Your task to perform on an android device: change notifications settings Image 0: 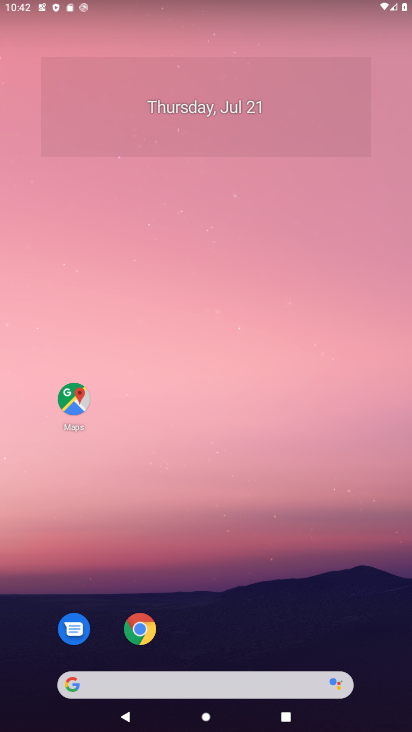
Step 0: drag from (230, 651) to (163, 154)
Your task to perform on an android device: change notifications settings Image 1: 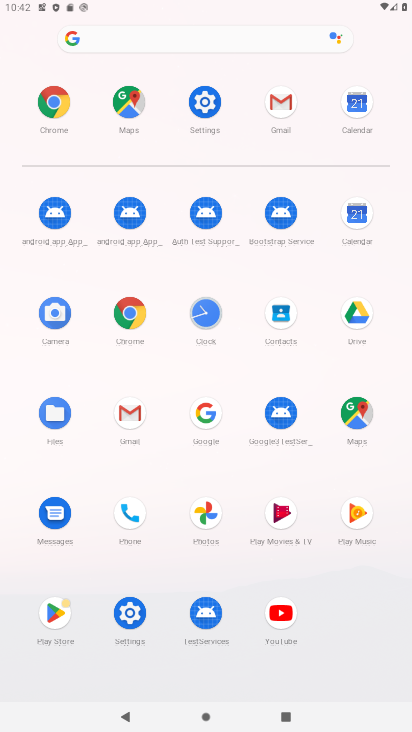
Step 1: click (204, 106)
Your task to perform on an android device: change notifications settings Image 2: 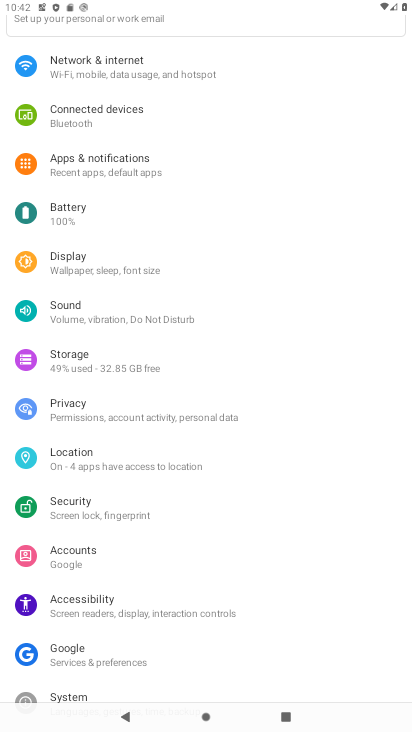
Step 2: click (68, 164)
Your task to perform on an android device: change notifications settings Image 3: 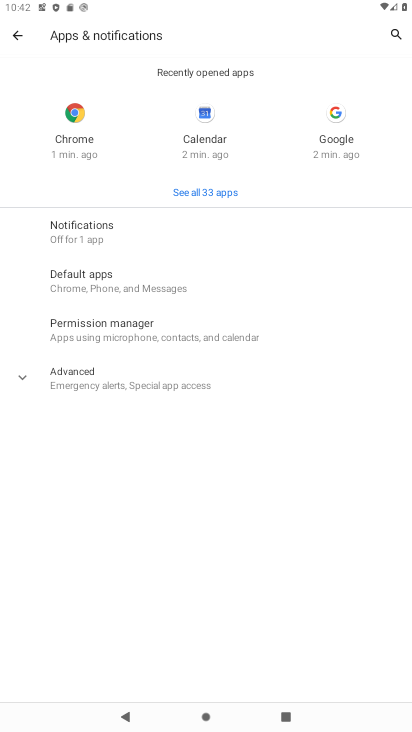
Step 3: click (88, 231)
Your task to perform on an android device: change notifications settings Image 4: 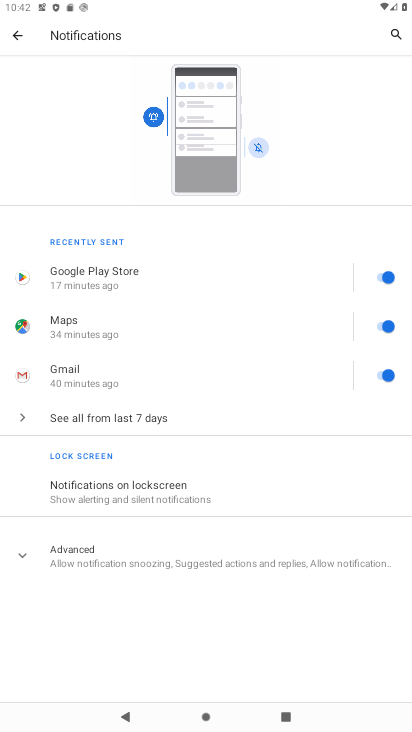
Step 4: click (123, 484)
Your task to perform on an android device: change notifications settings Image 5: 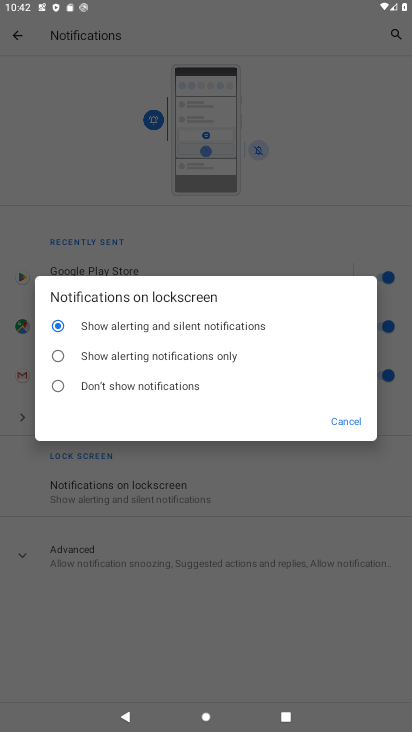
Step 5: click (50, 388)
Your task to perform on an android device: change notifications settings Image 6: 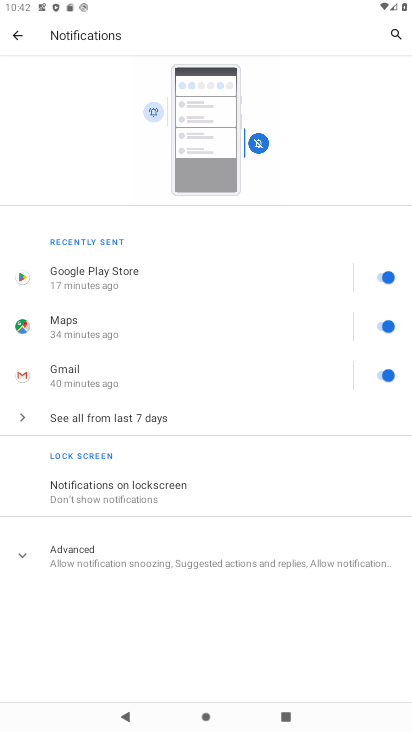
Step 6: task complete